Your task to perform on an android device: Open Chrome and go to settings Image 0: 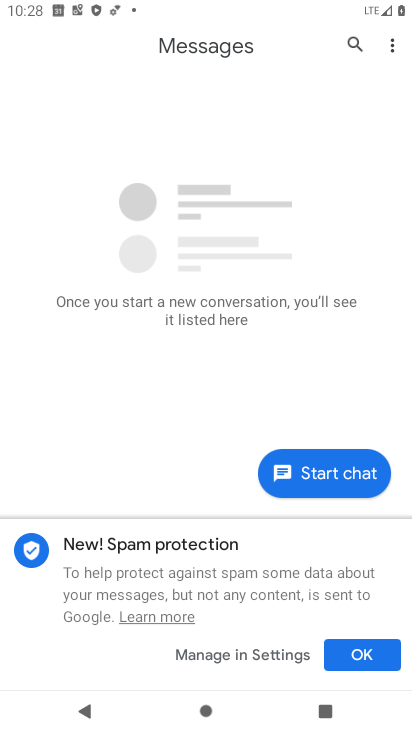
Step 0: press home button
Your task to perform on an android device: Open Chrome and go to settings Image 1: 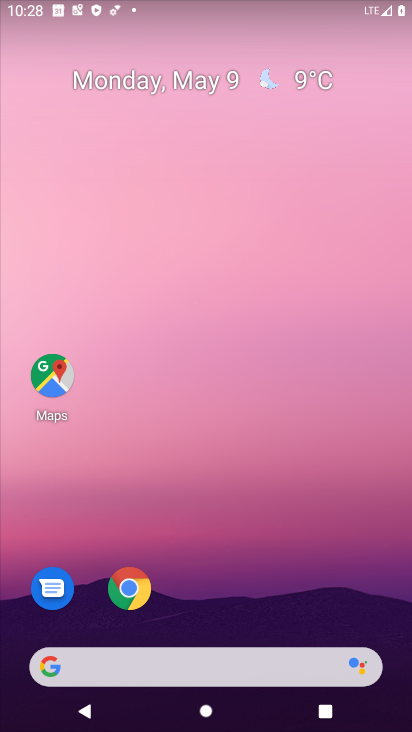
Step 1: drag from (210, 676) to (297, 97)
Your task to perform on an android device: Open Chrome and go to settings Image 2: 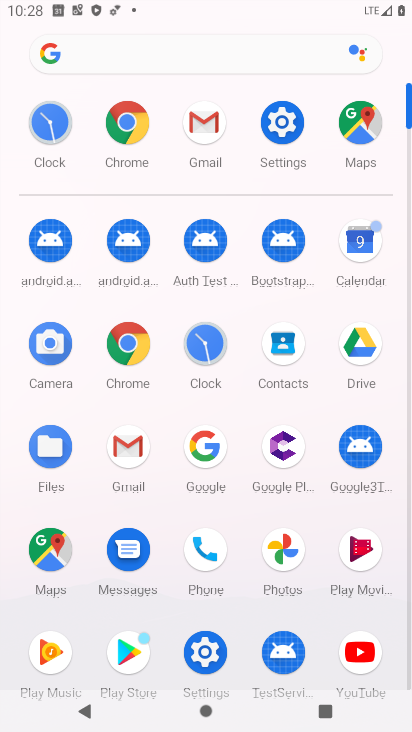
Step 2: click (125, 130)
Your task to perform on an android device: Open Chrome and go to settings Image 3: 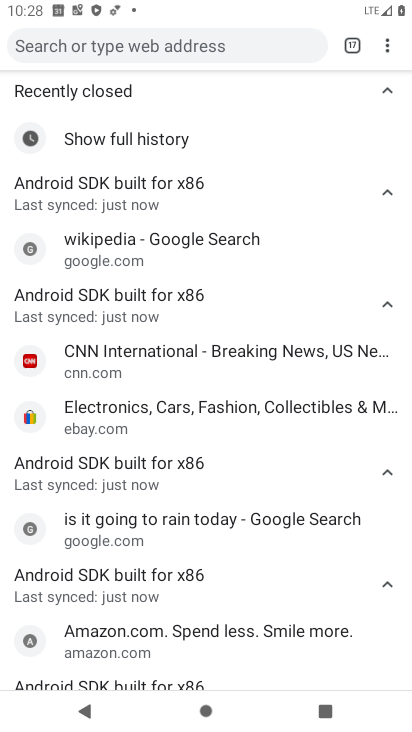
Step 3: task complete